Your task to perform on an android device: Open the calendar app, open the side menu, and click the "Day" option Image 0: 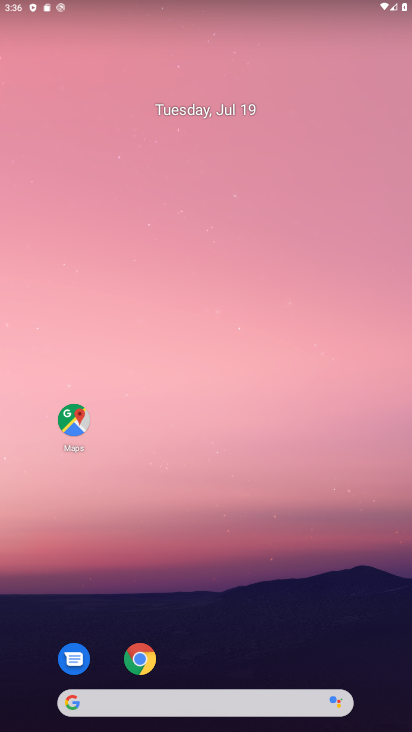
Step 0: drag from (276, 620) to (284, 66)
Your task to perform on an android device: Open the calendar app, open the side menu, and click the "Day" option Image 1: 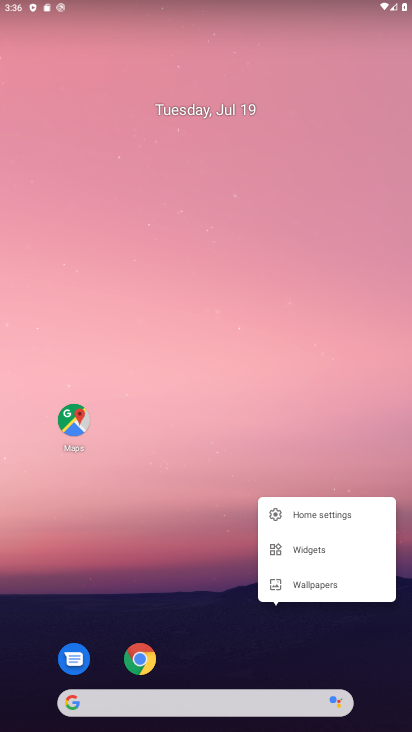
Step 1: click (240, 413)
Your task to perform on an android device: Open the calendar app, open the side menu, and click the "Day" option Image 2: 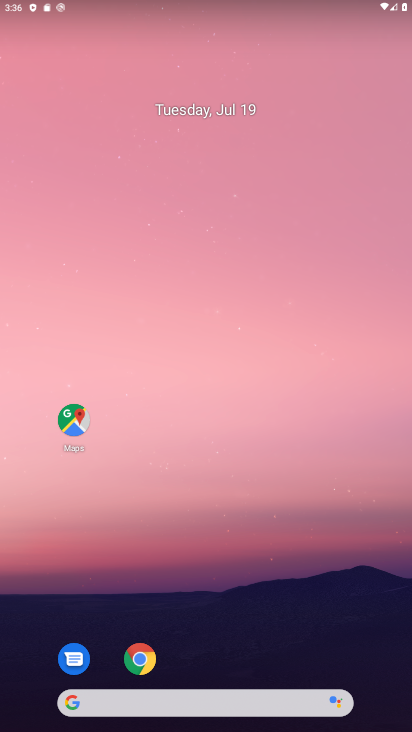
Step 2: drag from (202, 560) to (156, 35)
Your task to perform on an android device: Open the calendar app, open the side menu, and click the "Day" option Image 3: 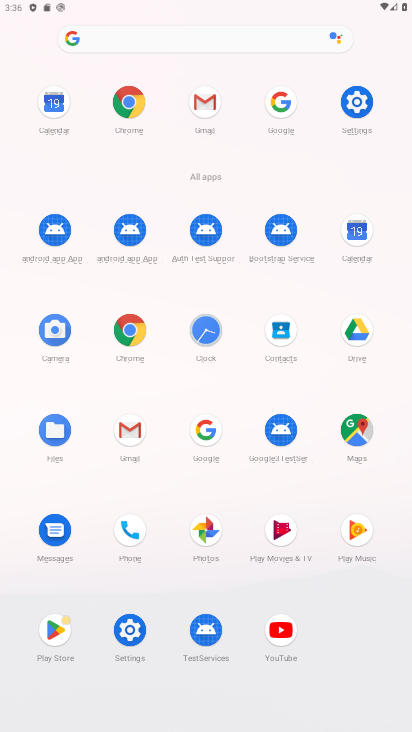
Step 3: click (354, 225)
Your task to perform on an android device: Open the calendar app, open the side menu, and click the "Day" option Image 4: 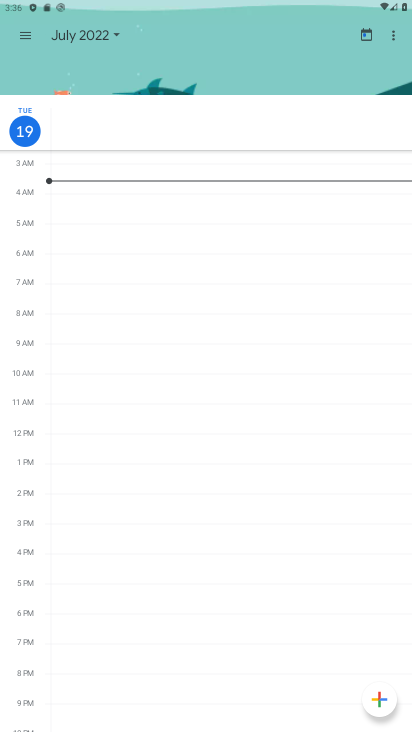
Step 4: click (18, 36)
Your task to perform on an android device: Open the calendar app, open the side menu, and click the "Day" option Image 5: 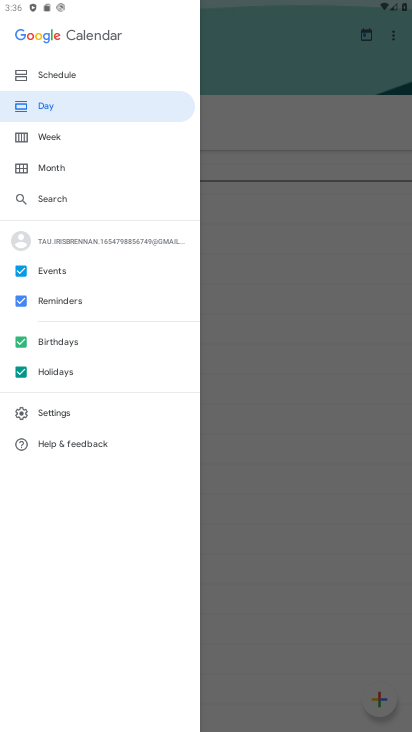
Step 5: click (32, 96)
Your task to perform on an android device: Open the calendar app, open the side menu, and click the "Day" option Image 6: 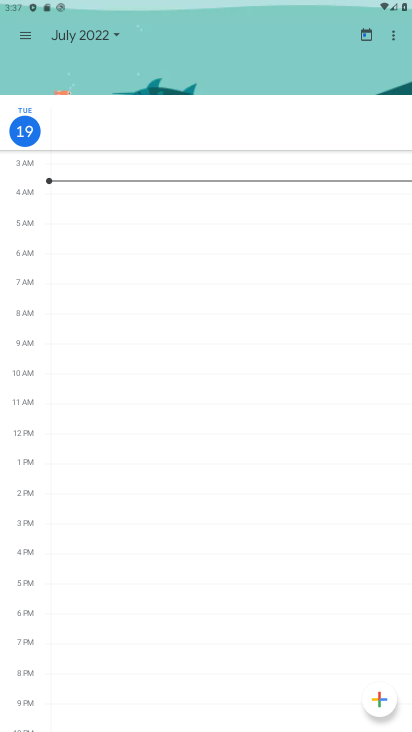
Step 6: task complete